Your task to perform on an android device: change keyboard looks Image 0: 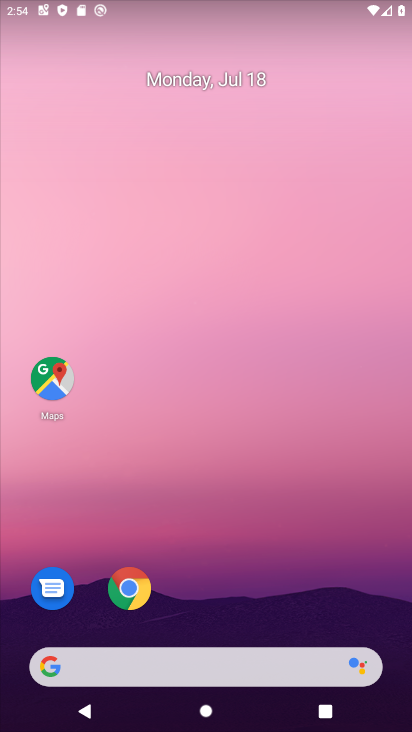
Step 0: drag from (286, 614) to (263, 182)
Your task to perform on an android device: change keyboard looks Image 1: 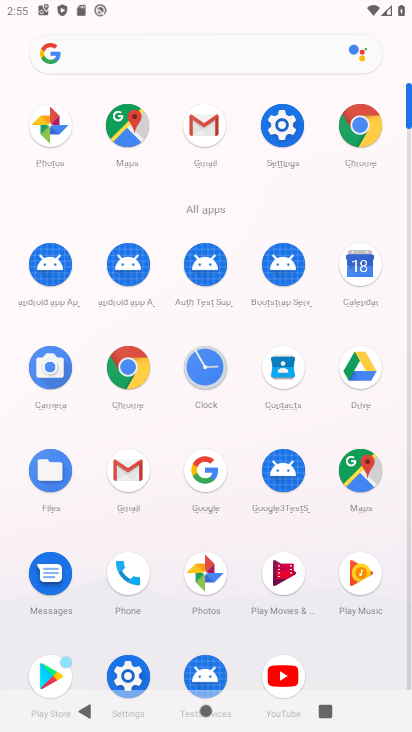
Step 1: click (282, 155)
Your task to perform on an android device: change keyboard looks Image 2: 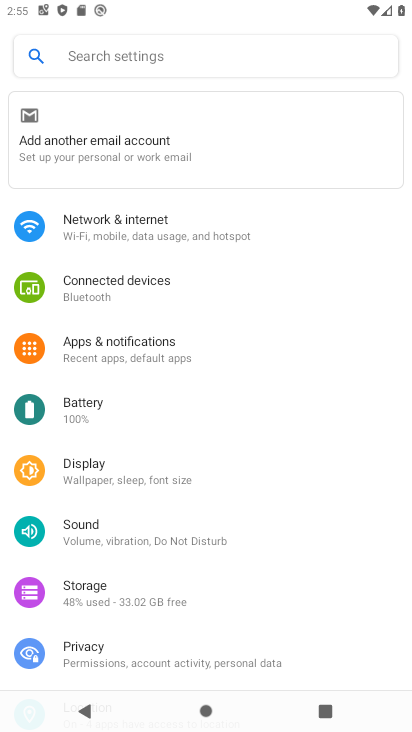
Step 2: drag from (160, 673) to (159, 252)
Your task to perform on an android device: change keyboard looks Image 3: 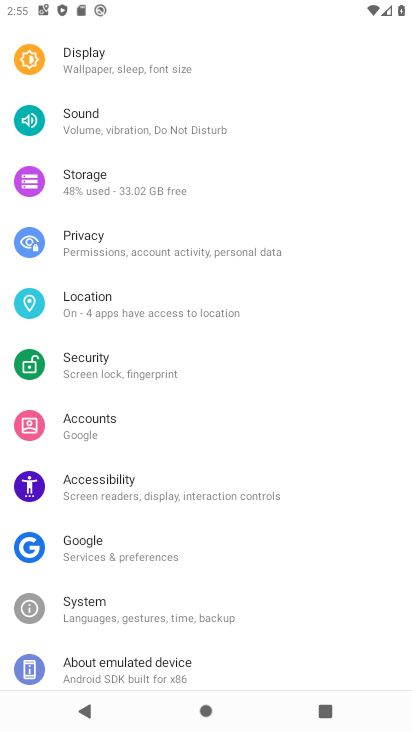
Step 3: drag from (160, 654) to (117, 289)
Your task to perform on an android device: change keyboard looks Image 4: 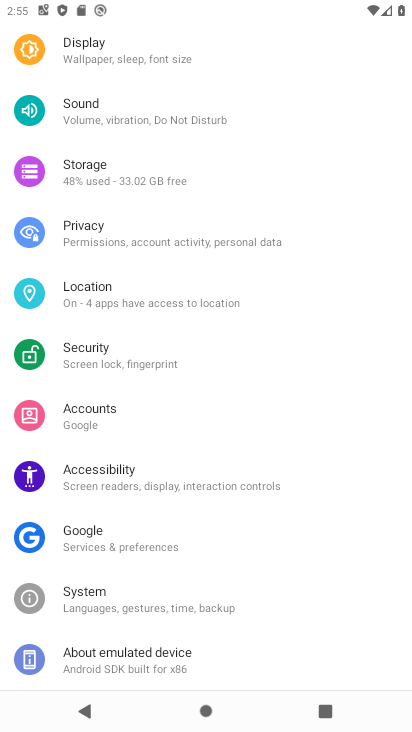
Step 4: click (134, 643)
Your task to perform on an android device: change keyboard looks Image 5: 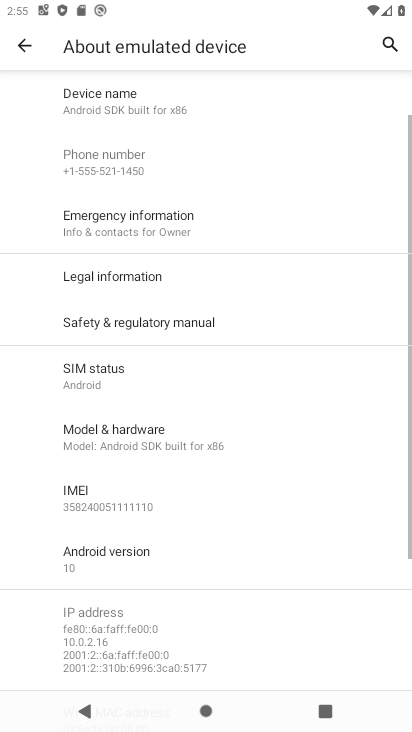
Step 5: click (29, 61)
Your task to perform on an android device: change keyboard looks Image 6: 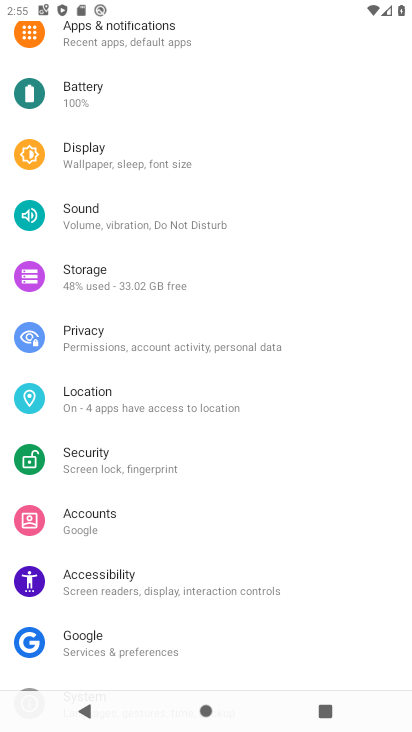
Step 6: drag from (160, 620) to (163, 444)
Your task to perform on an android device: change keyboard looks Image 7: 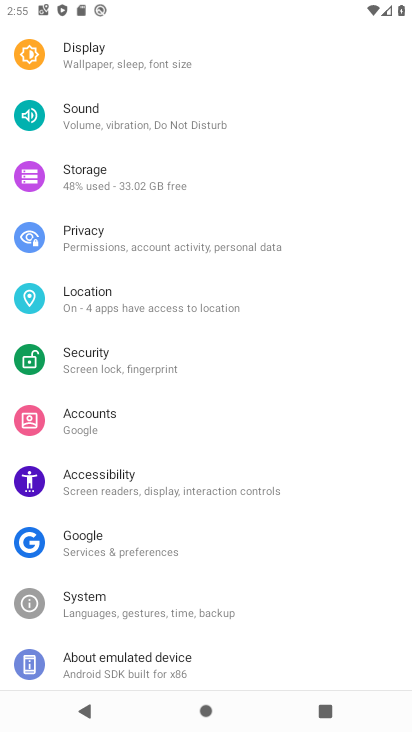
Step 7: click (172, 637)
Your task to perform on an android device: change keyboard looks Image 8: 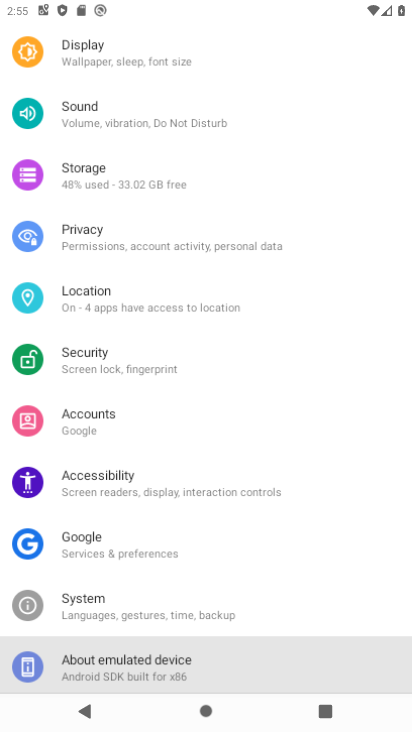
Step 8: click (175, 616)
Your task to perform on an android device: change keyboard looks Image 9: 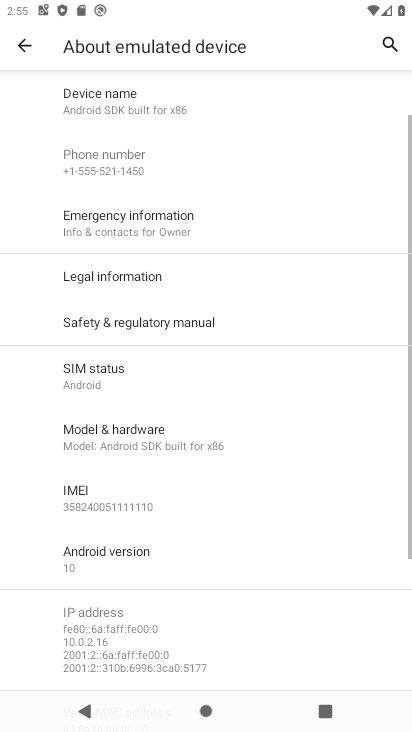
Step 9: click (16, 46)
Your task to perform on an android device: change keyboard looks Image 10: 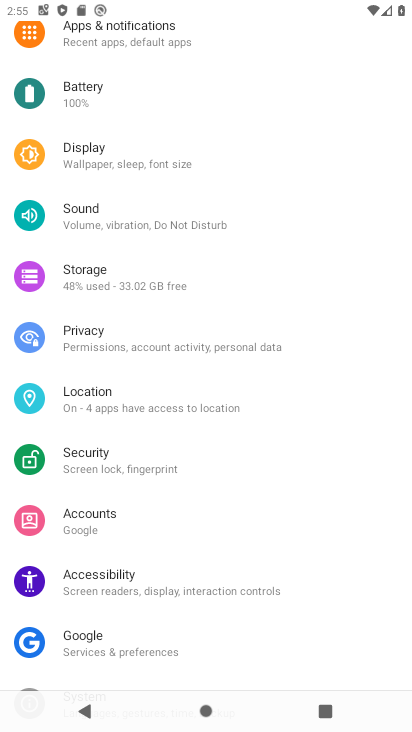
Step 10: click (181, 675)
Your task to perform on an android device: change keyboard looks Image 11: 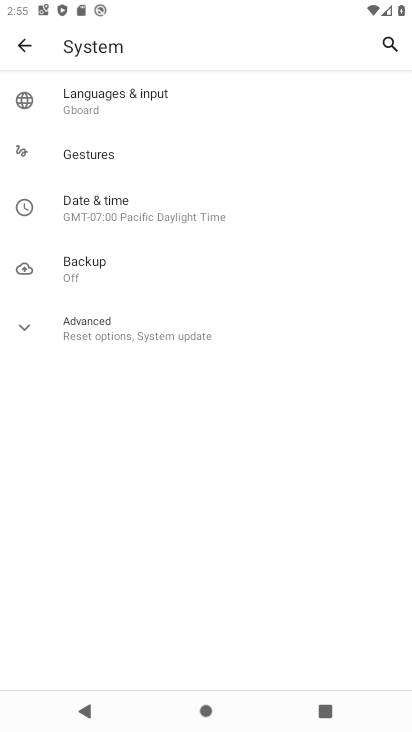
Step 11: click (127, 97)
Your task to perform on an android device: change keyboard looks Image 12: 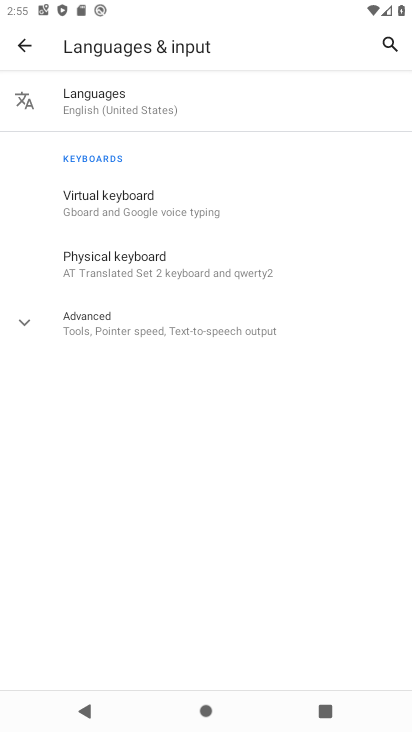
Step 12: click (163, 202)
Your task to perform on an android device: change keyboard looks Image 13: 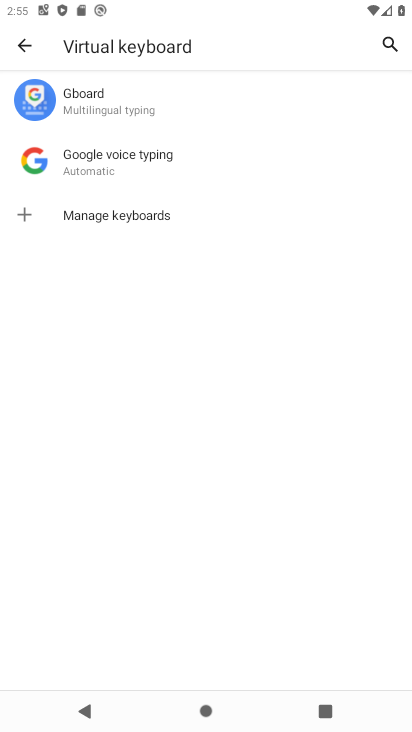
Step 13: click (131, 115)
Your task to perform on an android device: change keyboard looks Image 14: 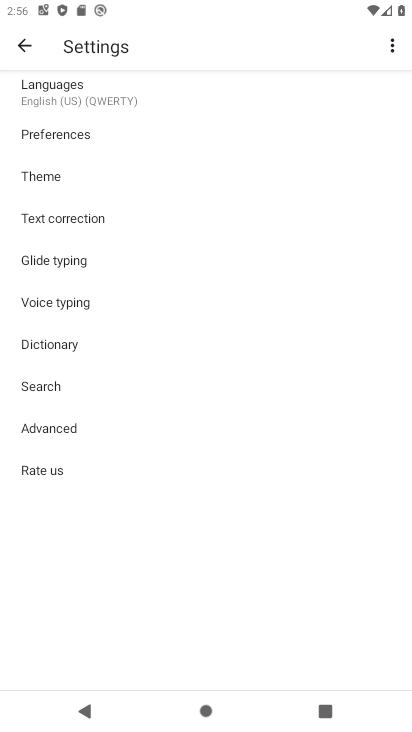
Step 14: click (255, 109)
Your task to perform on an android device: change keyboard looks Image 15: 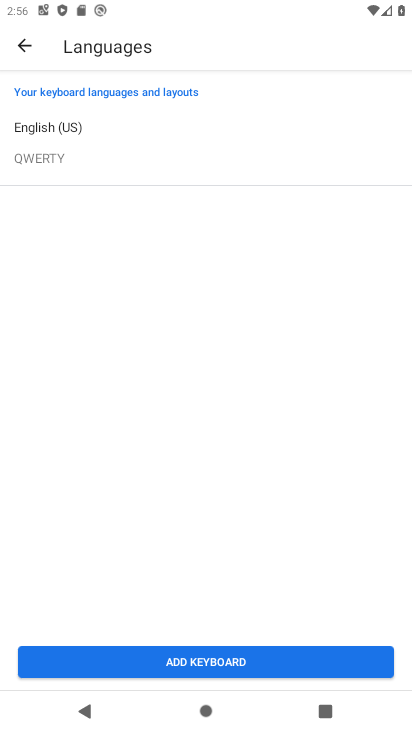
Step 15: task complete